Your task to perform on an android device: refresh tabs in the chrome app Image 0: 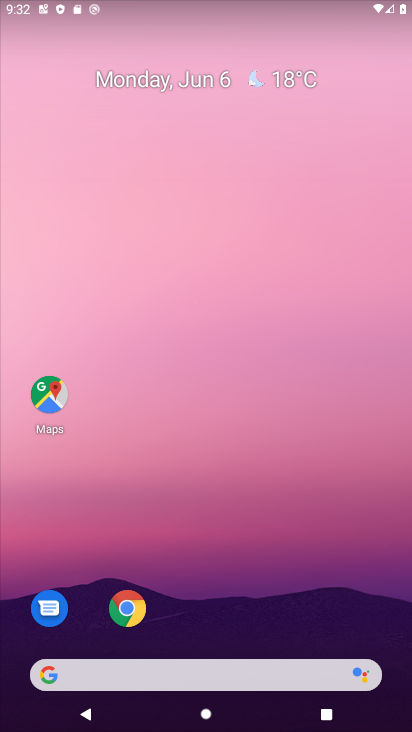
Step 0: click (127, 605)
Your task to perform on an android device: refresh tabs in the chrome app Image 1: 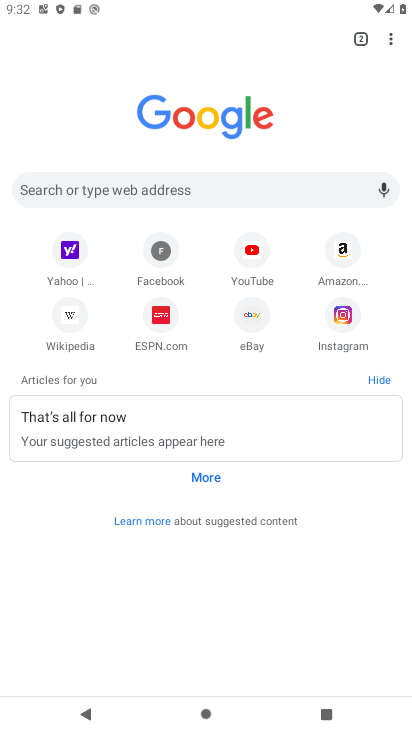
Step 1: click (392, 39)
Your task to perform on an android device: refresh tabs in the chrome app Image 2: 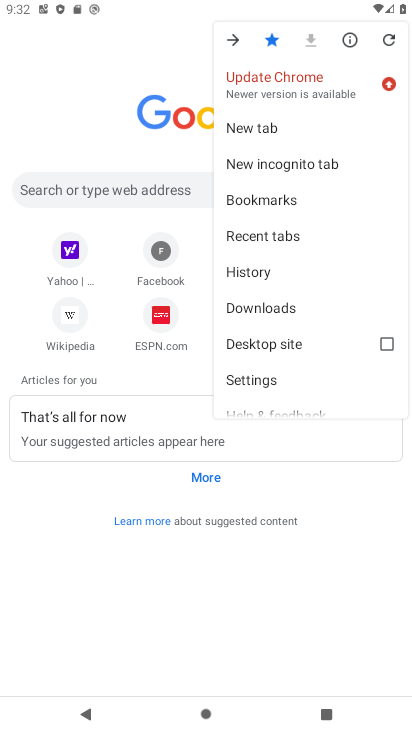
Step 2: click (392, 39)
Your task to perform on an android device: refresh tabs in the chrome app Image 3: 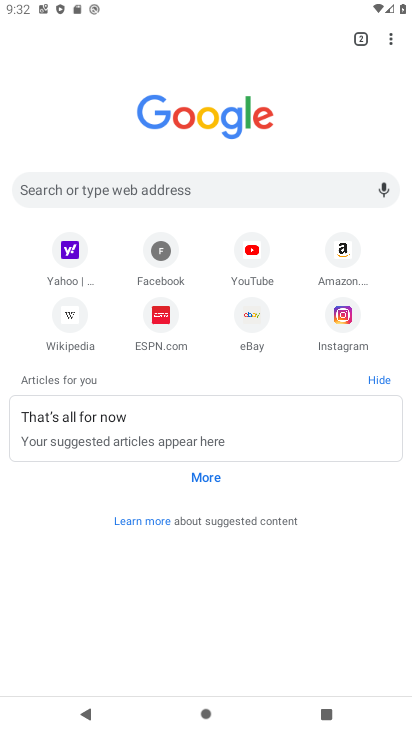
Step 3: task complete